Your task to perform on an android device: Open Google Chrome Image 0: 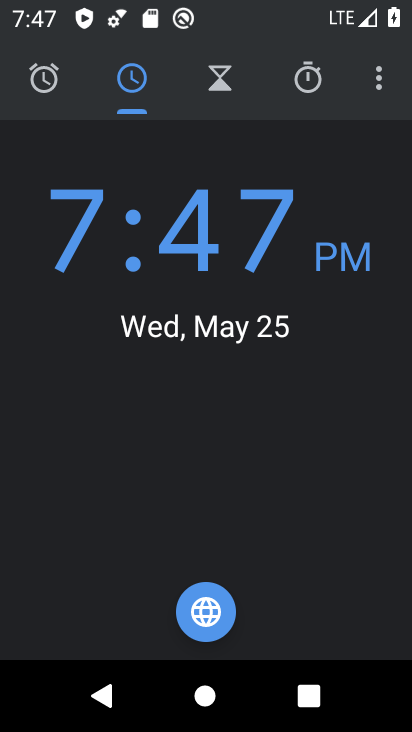
Step 0: press home button
Your task to perform on an android device: Open Google Chrome Image 1: 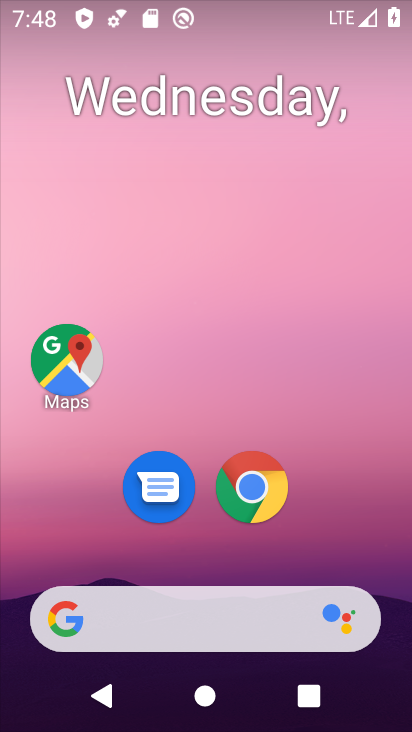
Step 1: click (245, 487)
Your task to perform on an android device: Open Google Chrome Image 2: 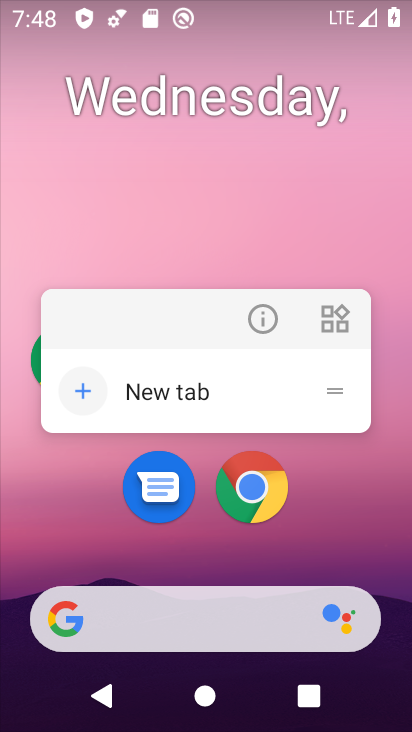
Step 2: click (245, 486)
Your task to perform on an android device: Open Google Chrome Image 3: 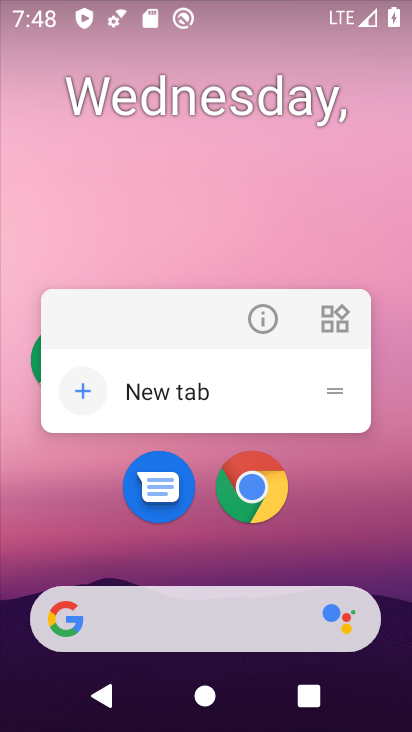
Step 3: click (248, 492)
Your task to perform on an android device: Open Google Chrome Image 4: 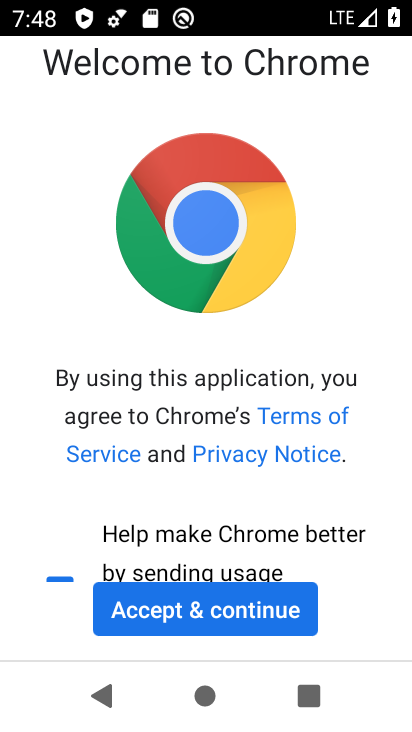
Step 4: click (257, 615)
Your task to perform on an android device: Open Google Chrome Image 5: 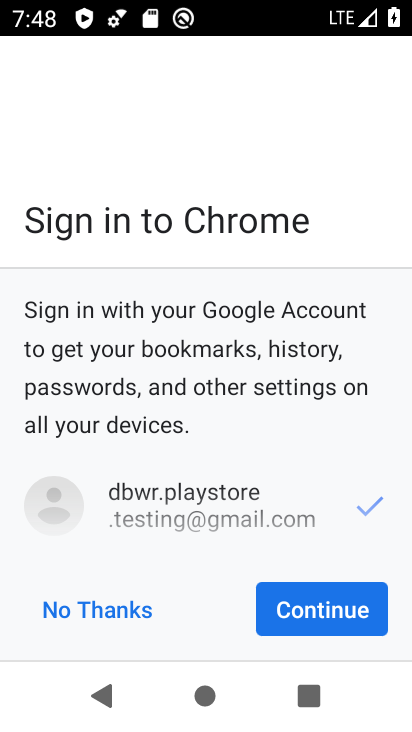
Step 5: click (68, 616)
Your task to perform on an android device: Open Google Chrome Image 6: 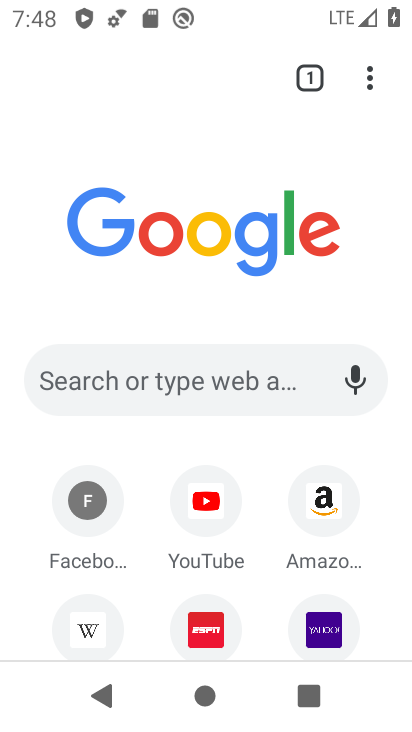
Step 6: task complete